Your task to perform on an android device: create a new album in the google photos Image 0: 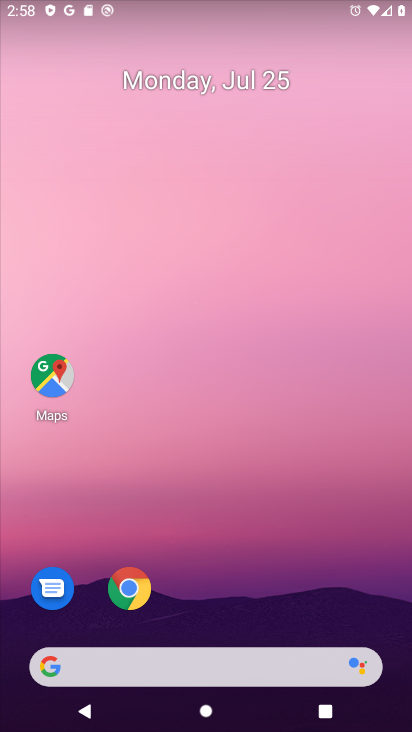
Step 0: press home button
Your task to perform on an android device: create a new album in the google photos Image 1: 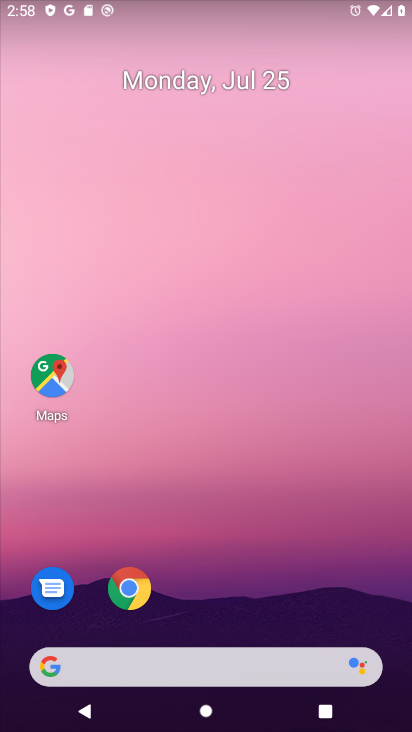
Step 1: drag from (238, 630) to (132, 8)
Your task to perform on an android device: create a new album in the google photos Image 2: 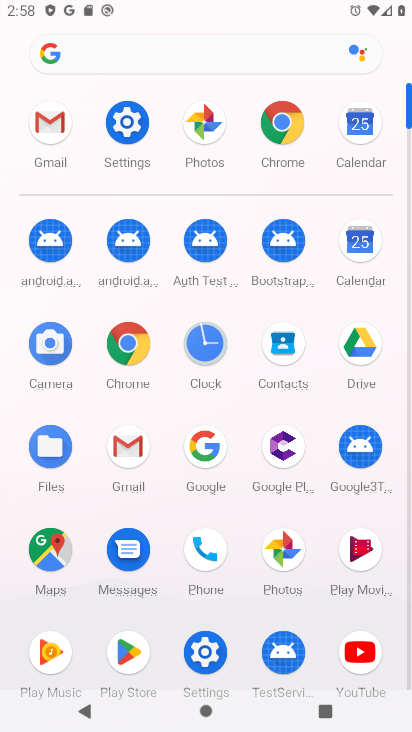
Step 2: click (202, 121)
Your task to perform on an android device: create a new album in the google photos Image 3: 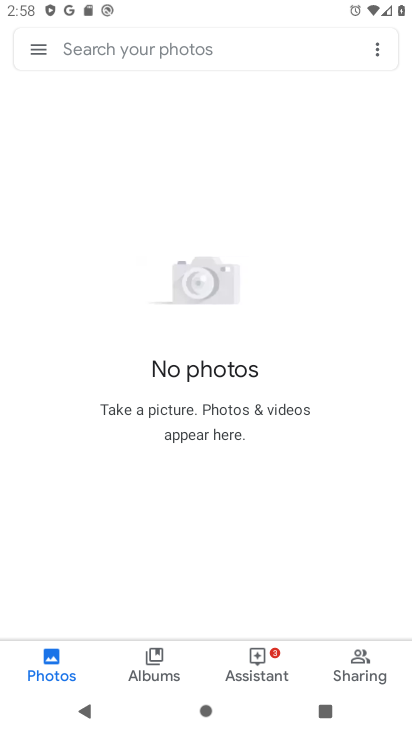
Step 3: click (160, 661)
Your task to perform on an android device: create a new album in the google photos Image 4: 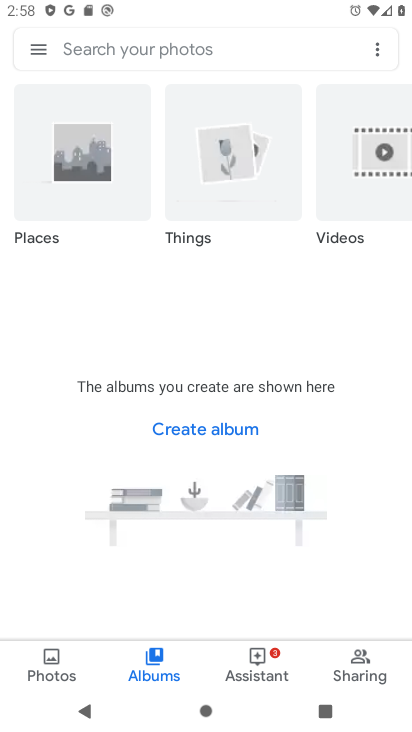
Step 4: click (379, 50)
Your task to perform on an android device: create a new album in the google photos Image 5: 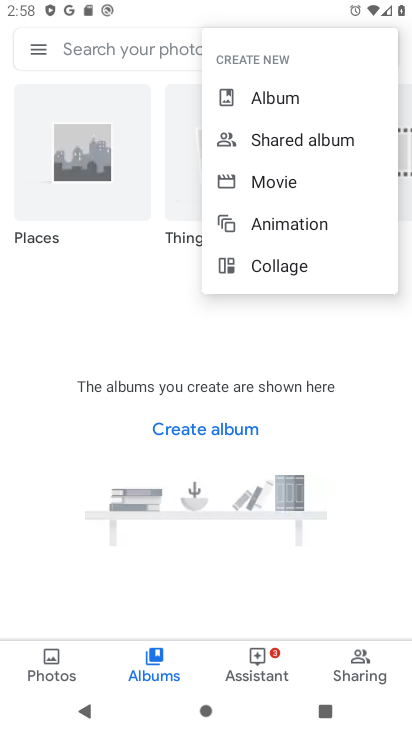
Step 5: click (293, 95)
Your task to perform on an android device: create a new album in the google photos Image 6: 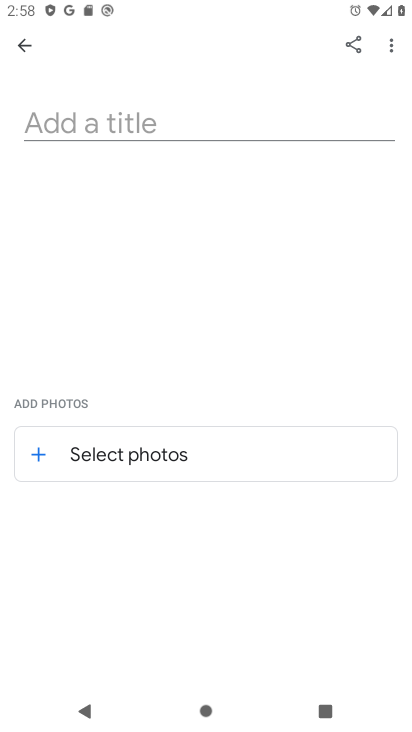
Step 6: click (38, 453)
Your task to perform on an android device: create a new album in the google photos Image 7: 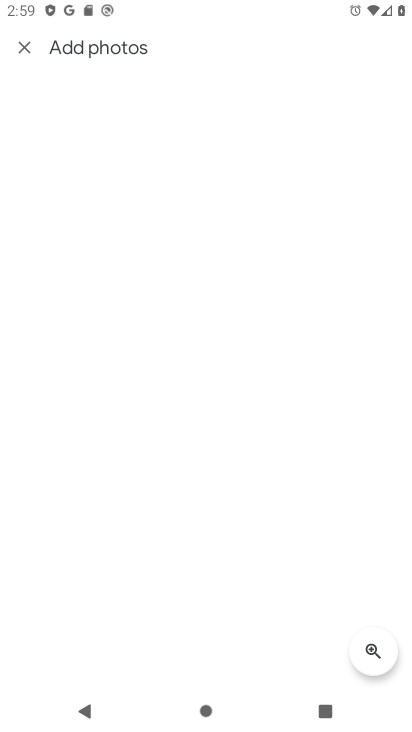
Step 7: task complete